Your task to perform on an android device: change text size in settings app Image 0: 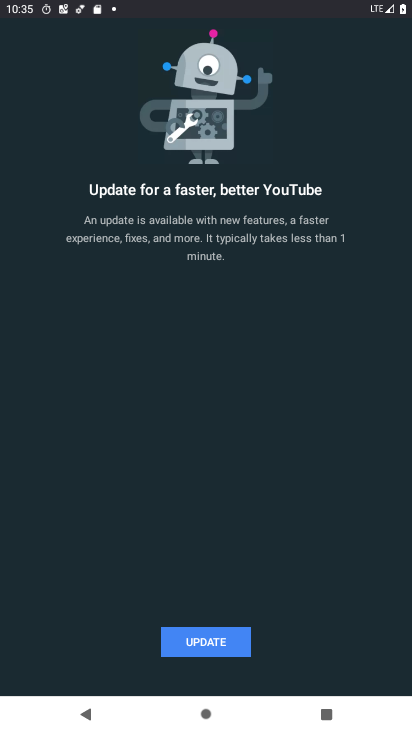
Step 0: press home button
Your task to perform on an android device: change text size in settings app Image 1: 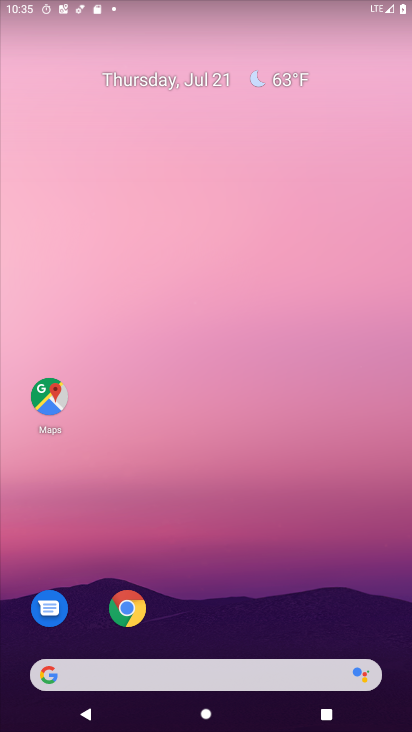
Step 1: drag from (227, 629) to (195, 57)
Your task to perform on an android device: change text size in settings app Image 2: 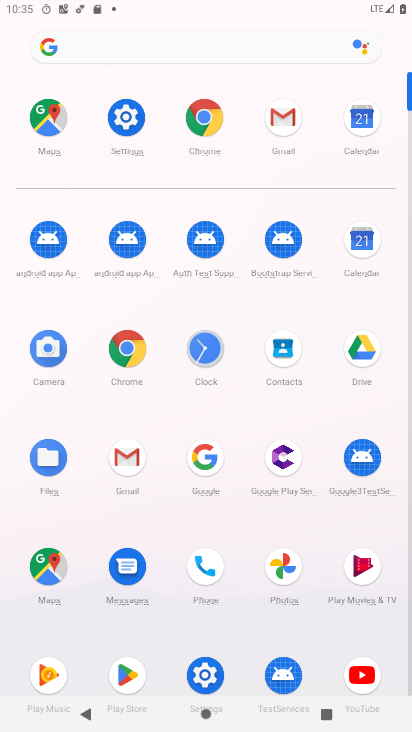
Step 2: click (119, 133)
Your task to perform on an android device: change text size in settings app Image 3: 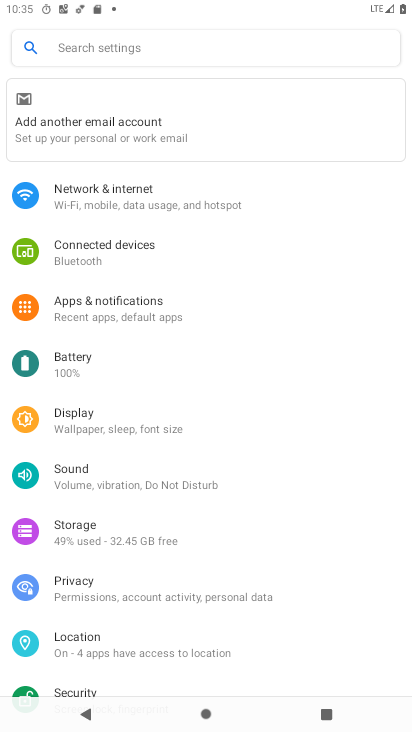
Step 3: click (76, 413)
Your task to perform on an android device: change text size in settings app Image 4: 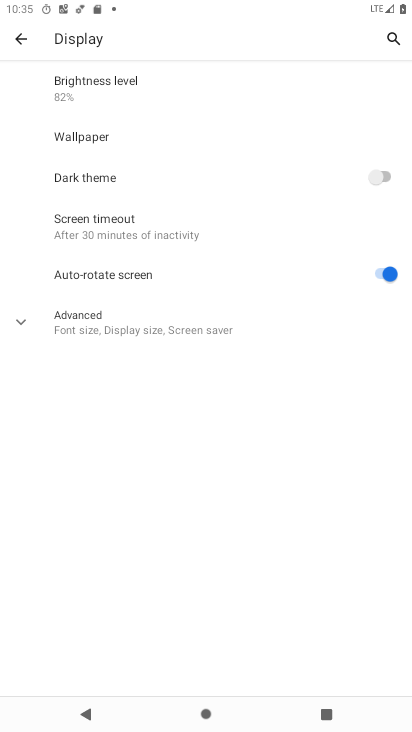
Step 4: click (105, 325)
Your task to perform on an android device: change text size in settings app Image 5: 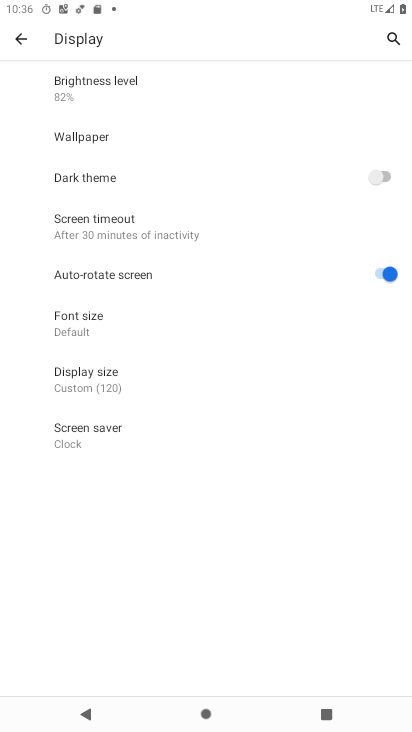
Step 5: click (104, 324)
Your task to perform on an android device: change text size in settings app Image 6: 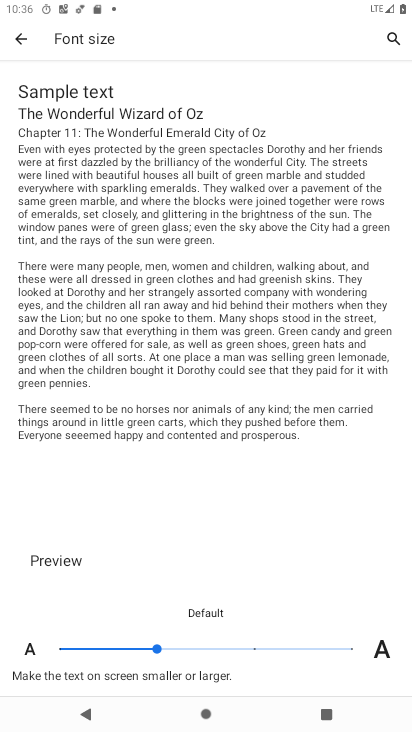
Step 6: click (257, 651)
Your task to perform on an android device: change text size in settings app Image 7: 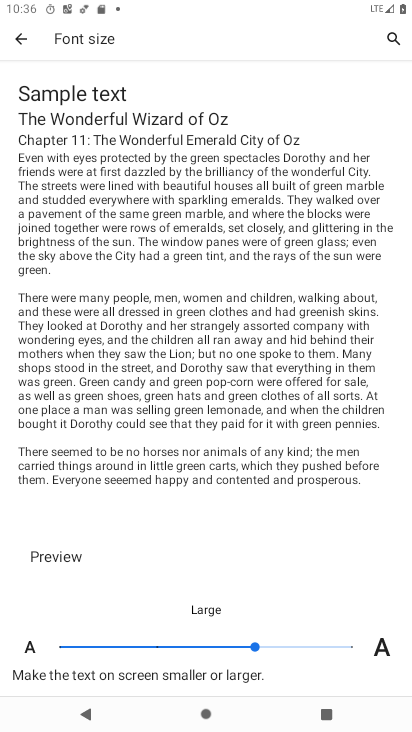
Step 7: task complete